Your task to perform on an android device: stop showing notifications on the lock screen Image 0: 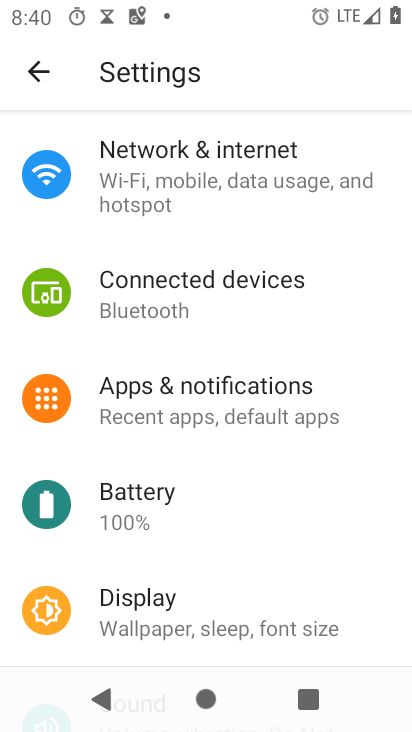
Step 0: click (179, 422)
Your task to perform on an android device: stop showing notifications on the lock screen Image 1: 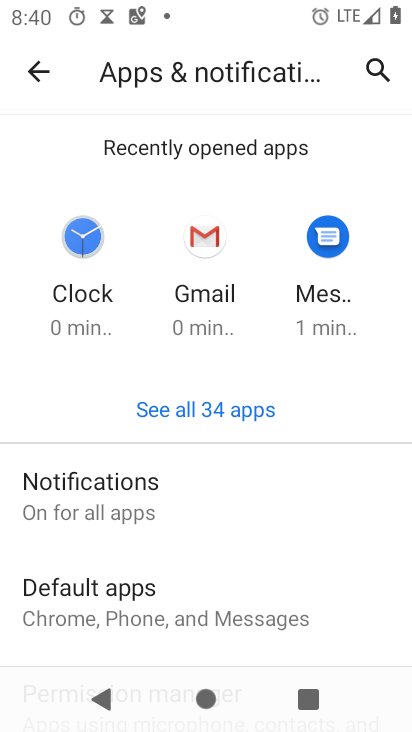
Step 1: click (124, 476)
Your task to perform on an android device: stop showing notifications on the lock screen Image 2: 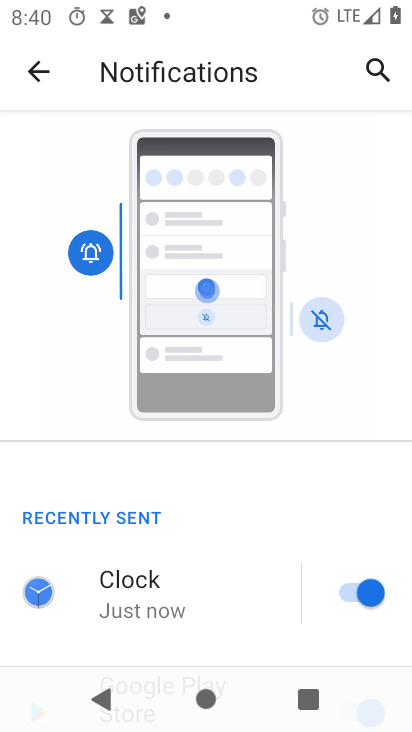
Step 2: drag from (185, 628) to (176, 329)
Your task to perform on an android device: stop showing notifications on the lock screen Image 3: 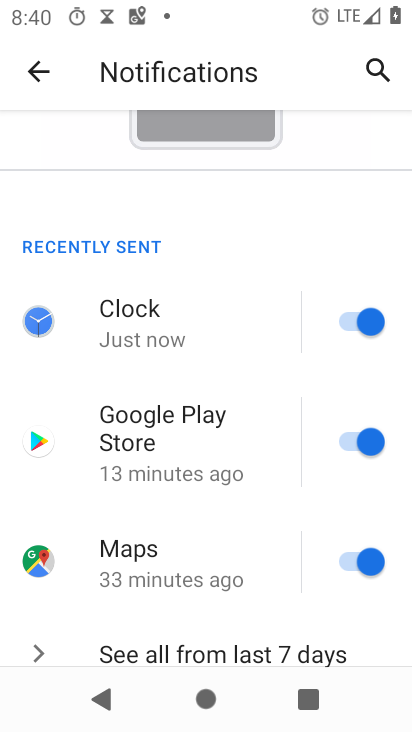
Step 3: drag from (117, 611) to (139, 274)
Your task to perform on an android device: stop showing notifications on the lock screen Image 4: 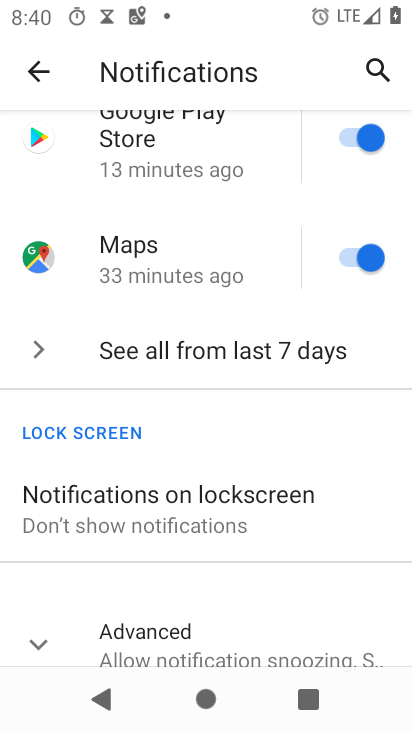
Step 4: click (165, 537)
Your task to perform on an android device: stop showing notifications on the lock screen Image 5: 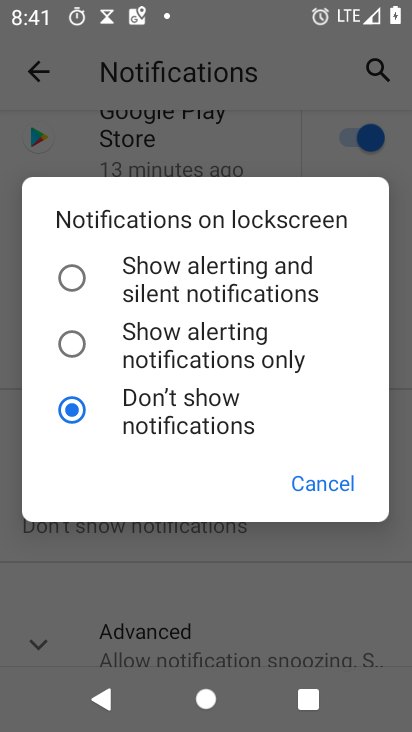
Step 5: click (205, 406)
Your task to perform on an android device: stop showing notifications on the lock screen Image 6: 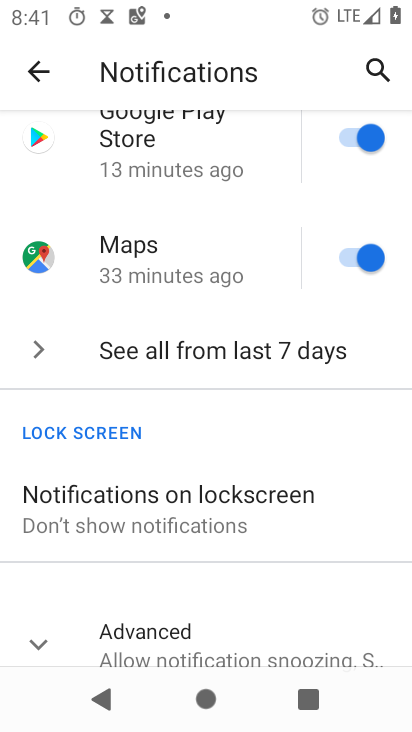
Step 6: task complete